Your task to perform on an android device: set the stopwatch Image 0: 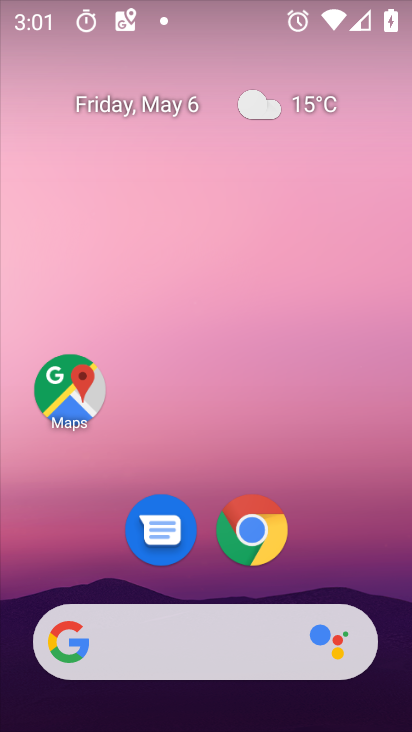
Step 0: drag from (367, 406) to (336, 48)
Your task to perform on an android device: set the stopwatch Image 1: 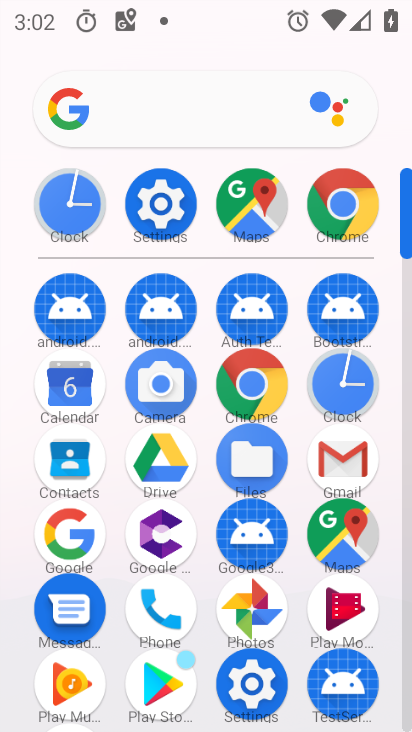
Step 1: click (362, 421)
Your task to perform on an android device: set the stopwatch Image 2: 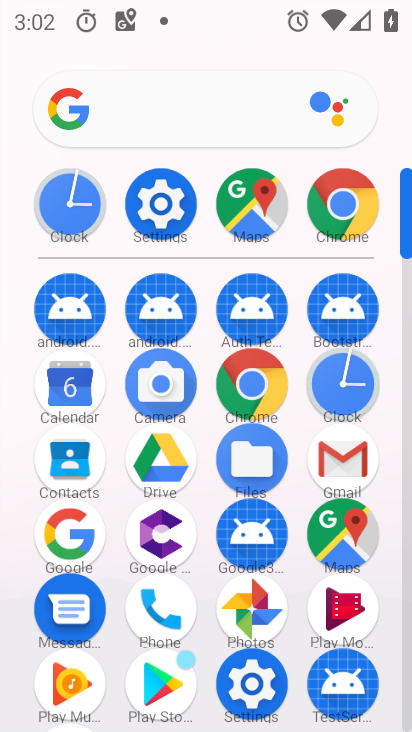
Step 2: click (338, 397)
Your task to perform on an android device: set the stopwatch Image 3: 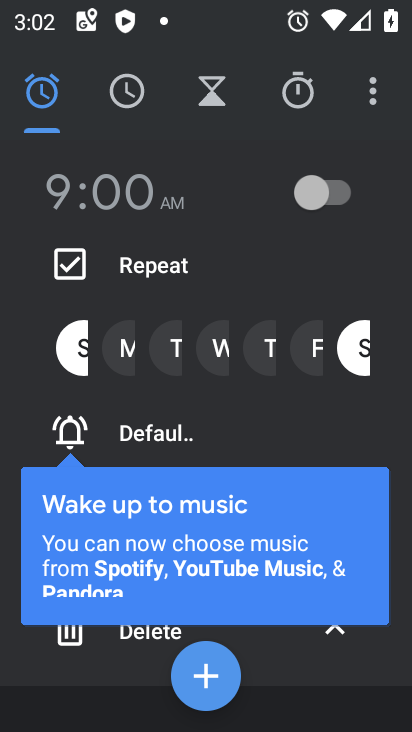
Step 3: click (311, 112)
Your task to perform on an android device: set the stopwatch Image 4: 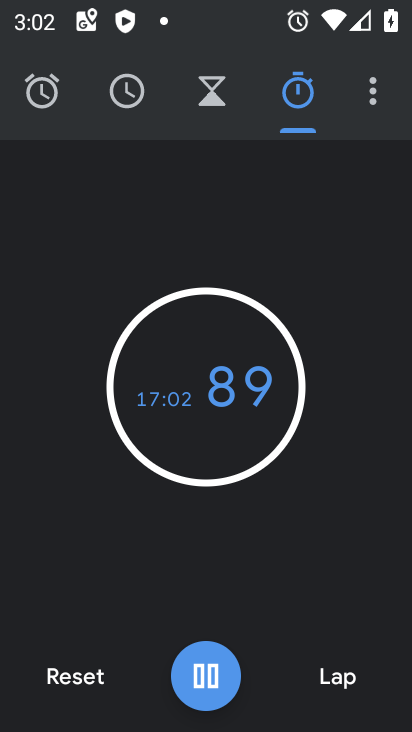
Step 4: task complete